Your task to perform on an android device: empty trash in the gmail app Image 0: 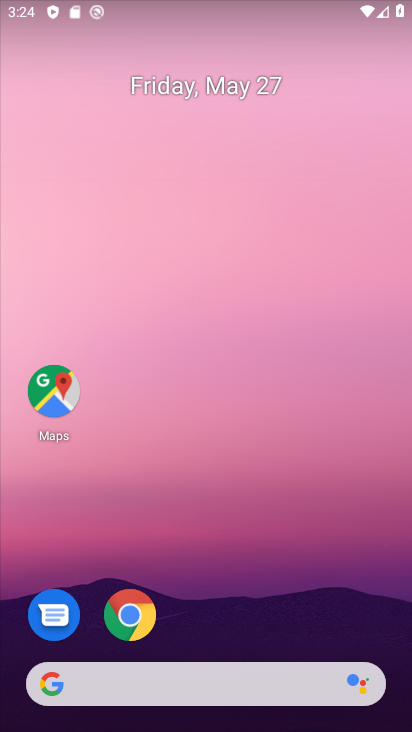
Step 0: drag from (136, 730) to (106, 57)
Your task to perform on an android device: empty trash in the gmail app Image 1: 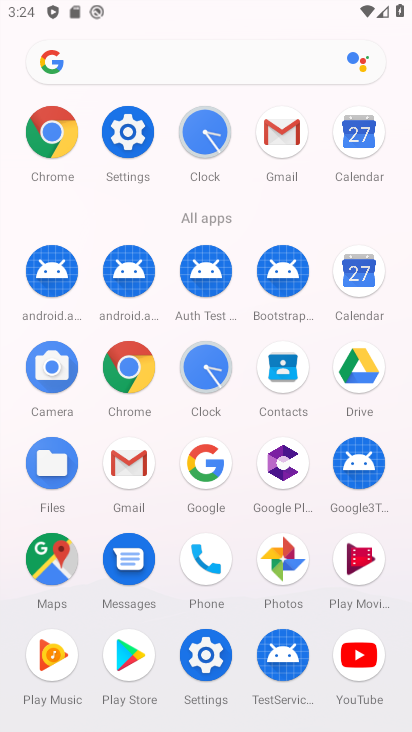
Step 1: click (288, 141)
Your task to perform on an android device: empty trash in the gmail app Image 2: 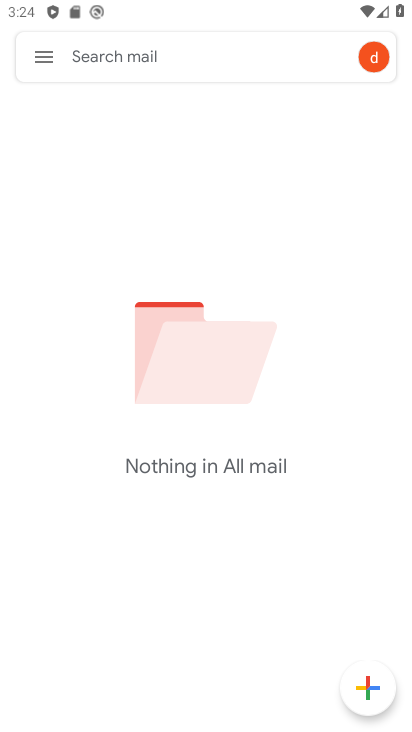
Step 2: click (33, 63)
Your task to perform on an android device: empty trash in the gmail app Image 3: 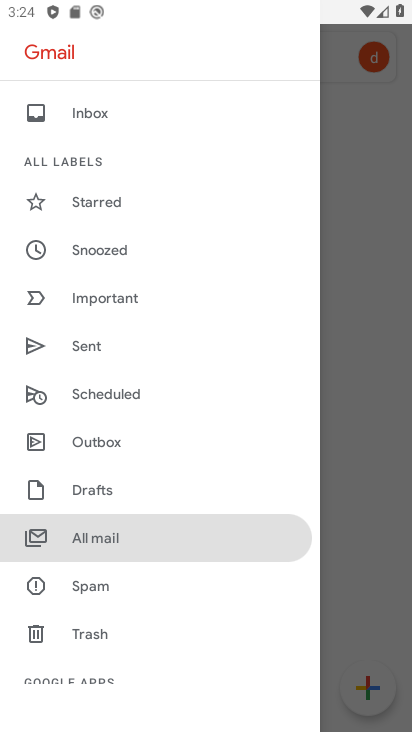
Step 3: click (73, 637)
Your task to perform on an android device: empty trash in the gmail app Image 4: 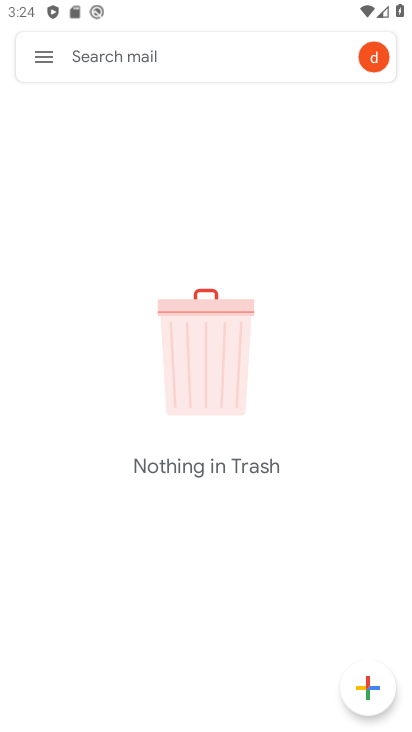
Step 4: task complete